Your task to perform on an android device: Open sound settings Image 0: 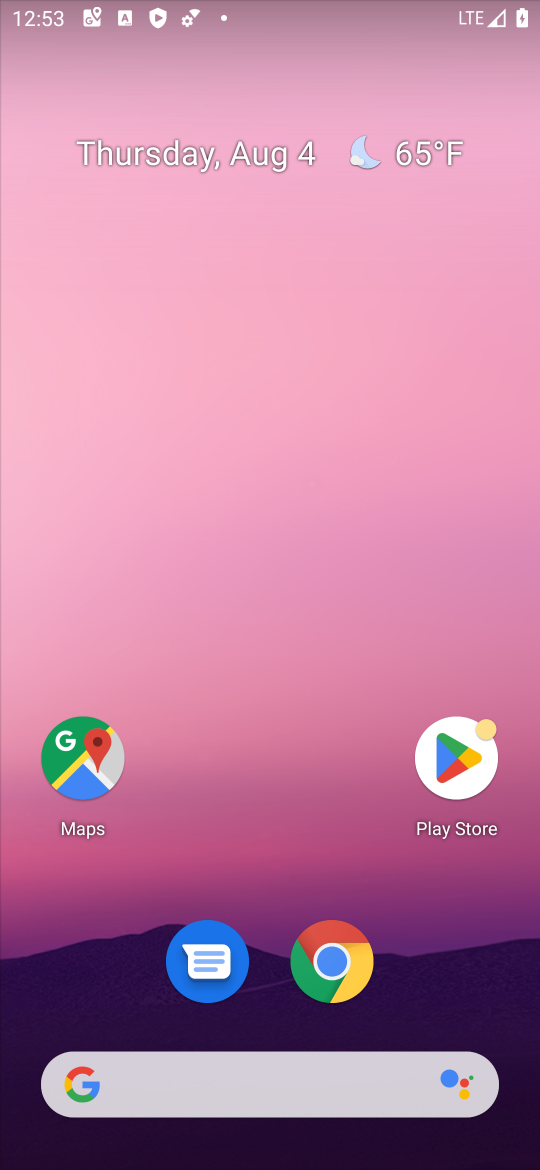
Step 0: drag from (392, 703) to (539, 384)
Your task to perform on an android device: Open sound settings Image 1: 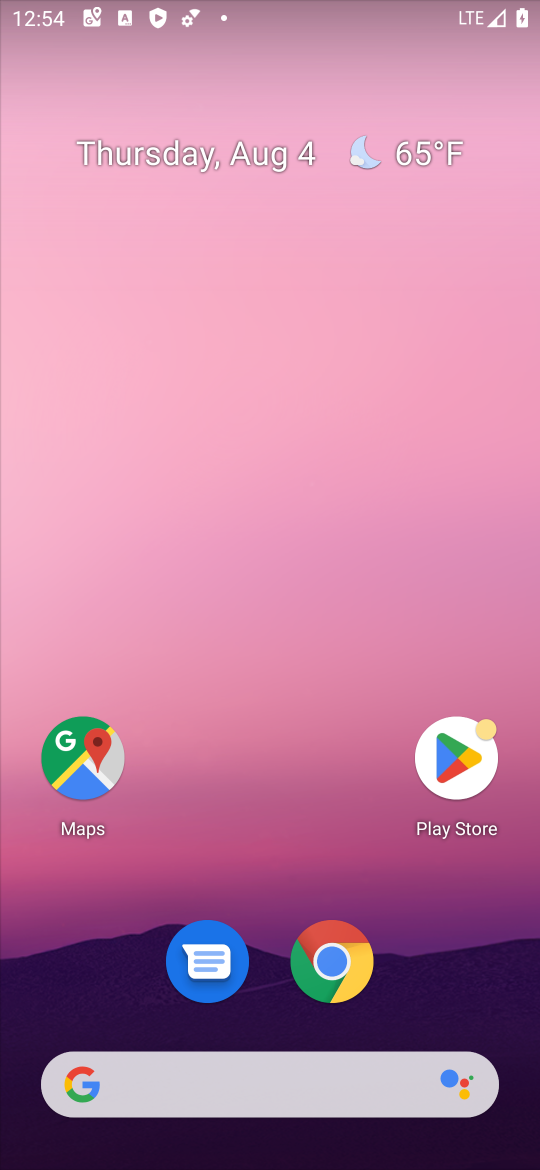
Step 1: drag from (257, 645) to (325, 0)
Your task to perform on an android device: Open sound settings Image 2: 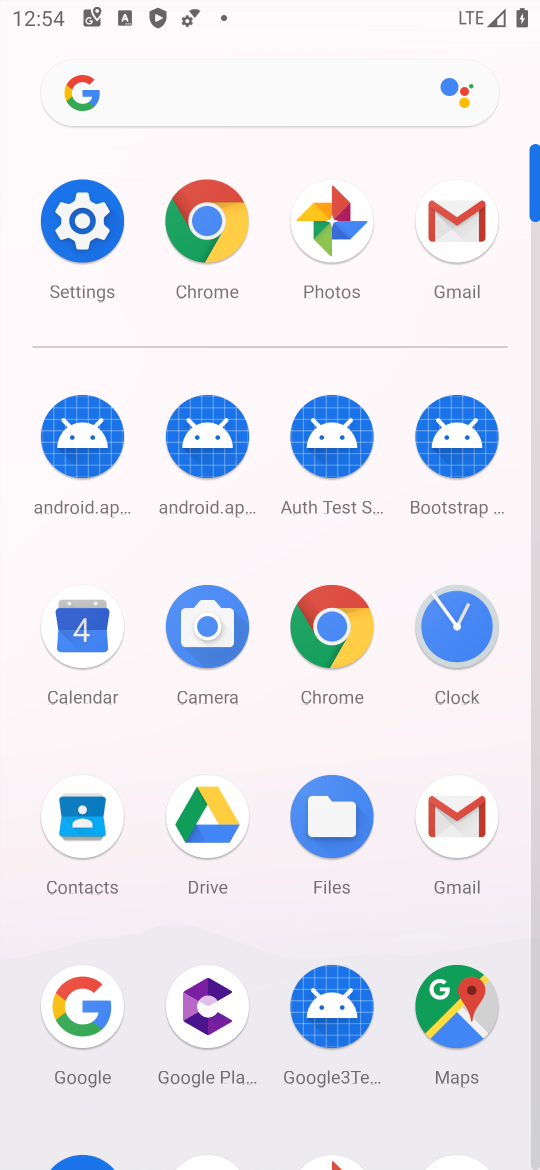
Step 2: click (78, 215)
Your task to perform on an android device: Open sound settings Image 3: 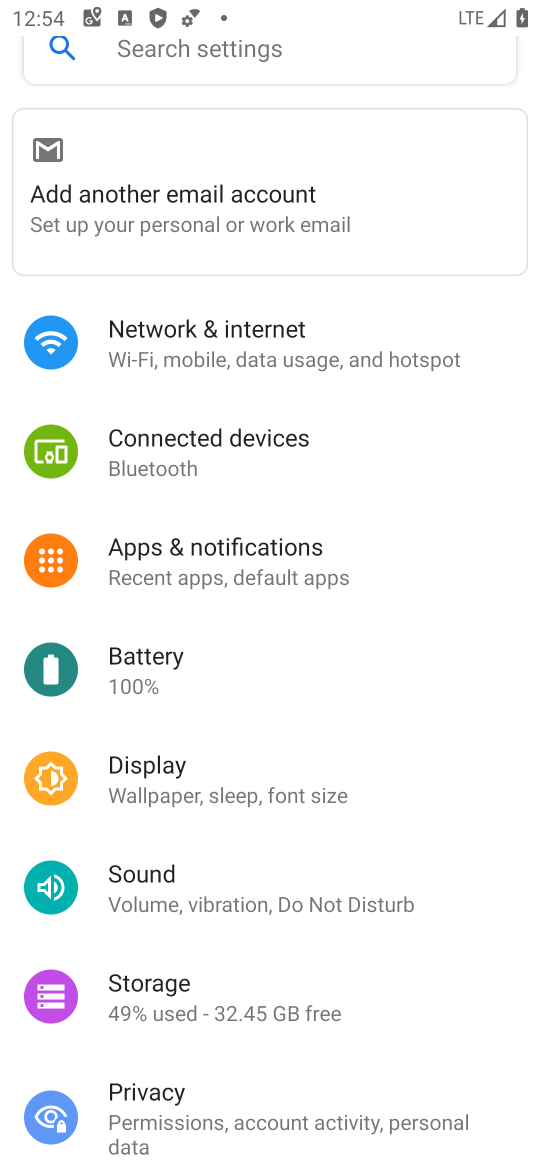
Step 3: click (236, 901)
Your task to perform on an android device: Open sound settings Image 4: 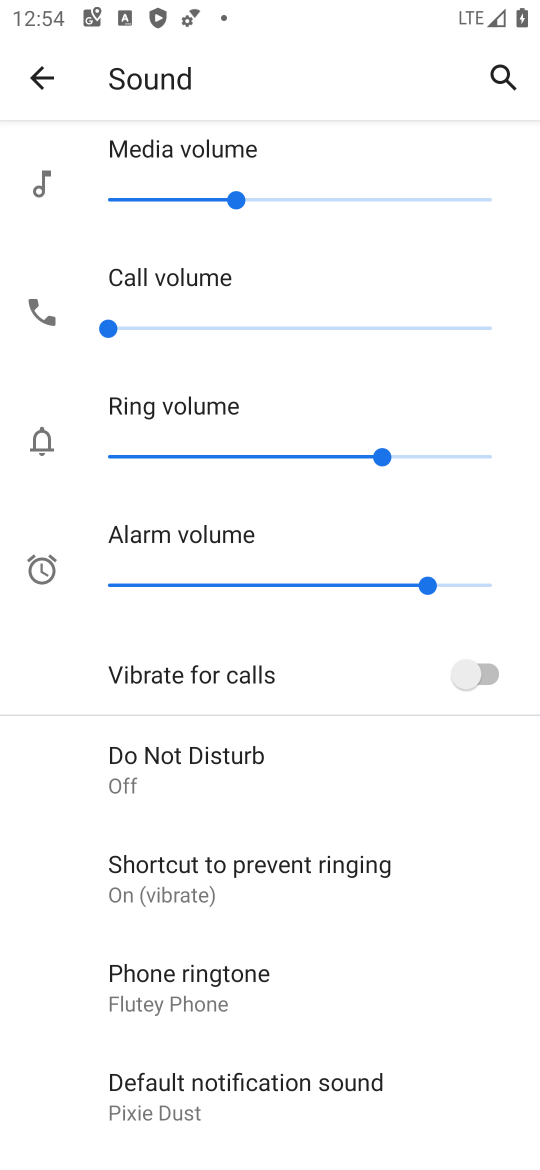
Step 4: task complete